Your task to perform on an android device: Go to eBay Image 0: 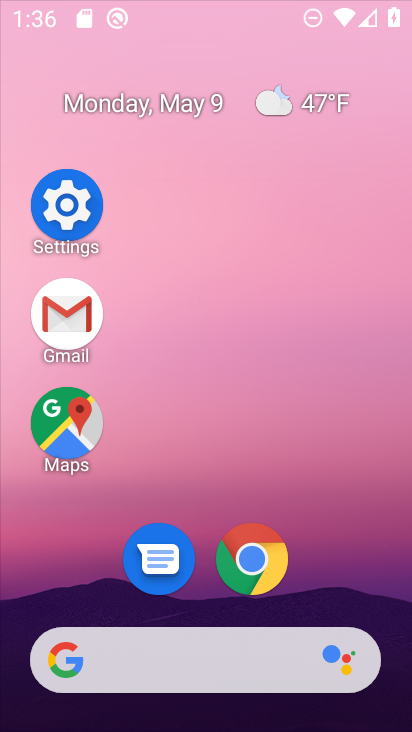
Step 0: click (57, 197)
Your task to perform on an android device: Go to eBay Image 1: 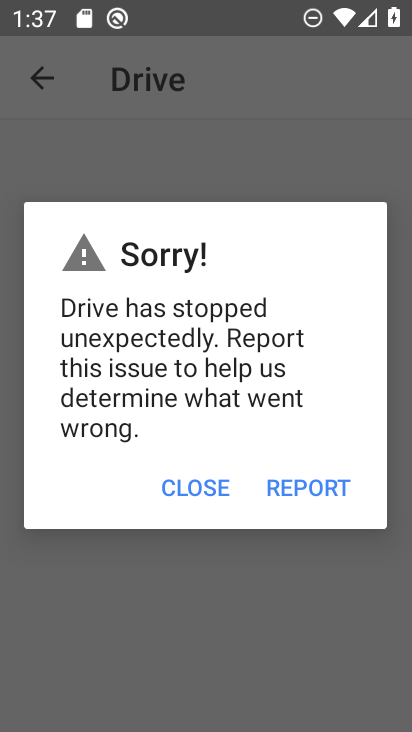
Step 1: press home button
Your task to perform on an android device: Go to eBay Image 2: 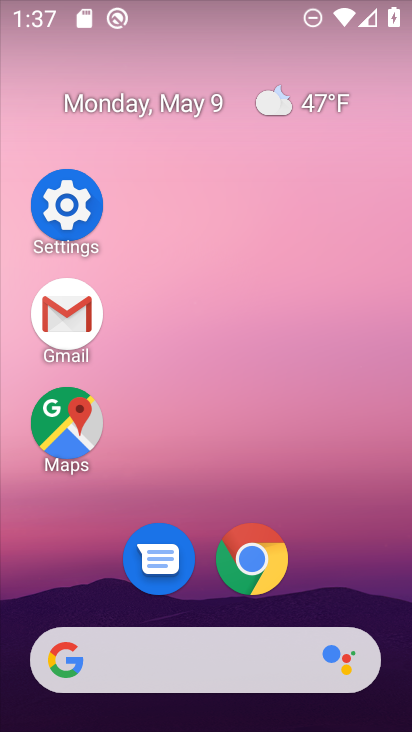
Step 2: click (271, 542)
Your task to perform on an android device: Go to eBay Image 3: 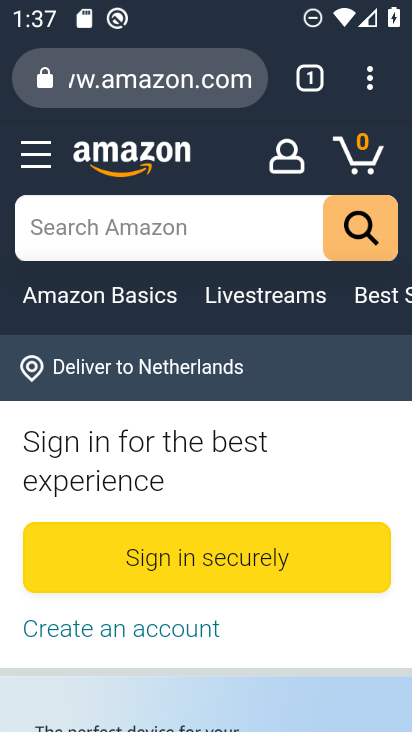
Step 3: click (281, 54)
Your task to perform on an android device: Go to eBay Image 4: 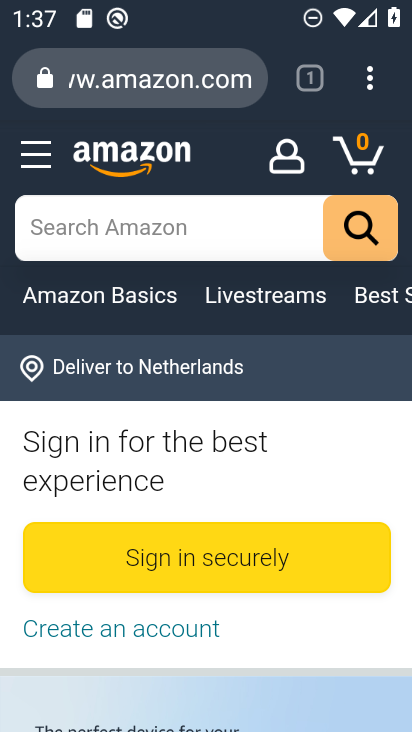
Step 4: click (308, 81)
Your task to perform on an android device: Go to eBay Image 5: 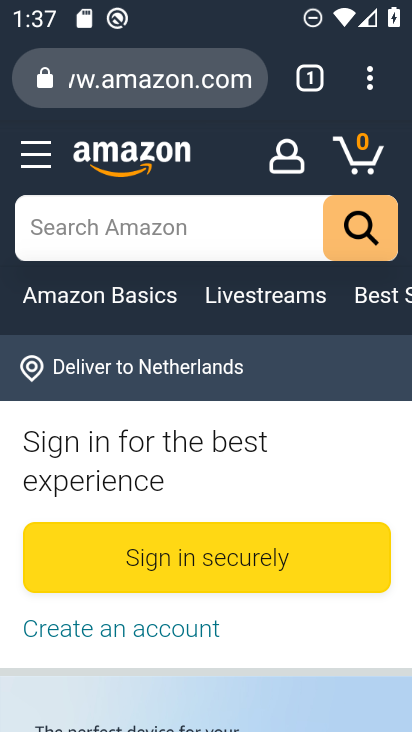
Step 5: click (305, 77)
Your task to perform on an android device: Go to eBay Image 6: 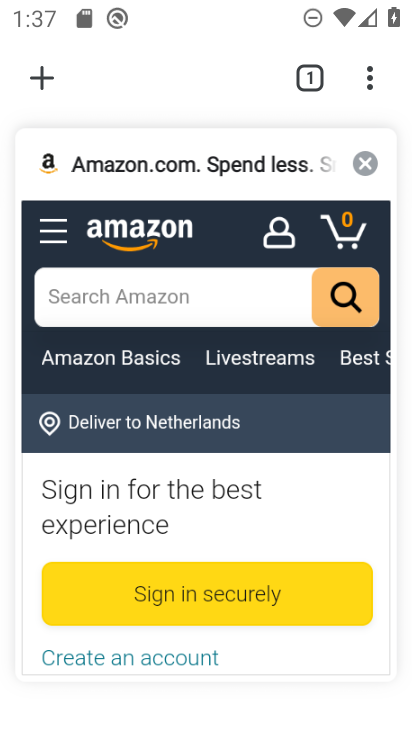
Step 6: click (50, 77)
Your task to perform on an android device: Go to eBay Image 7: 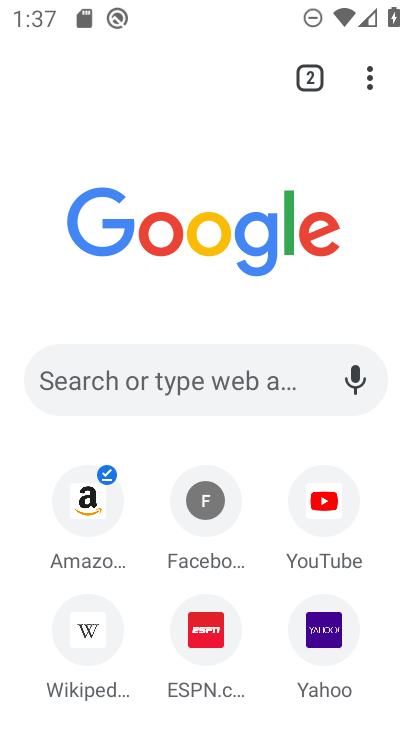
Step 7: click (211, 376)
Your task to perform on an android device: Go to eBay Image 8: 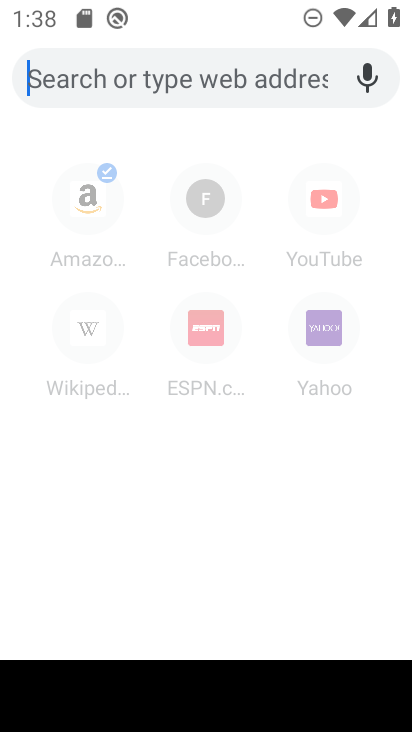
Step 8: type "ebay"
Your task to perform on an android device: Go to eBay Image 9: 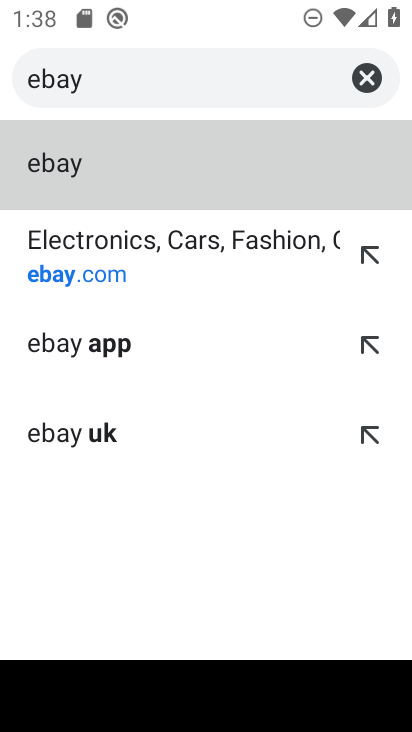
Step 9: click (105, 277)
Your task to perform on an android device: Go to eBay Image 10: 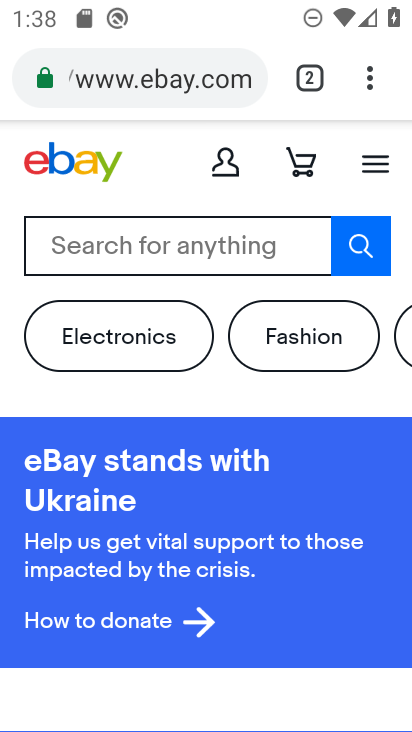
Step 10: task complete